Your task to perform on an android device: delete browsing data in the chrome app Image 0: 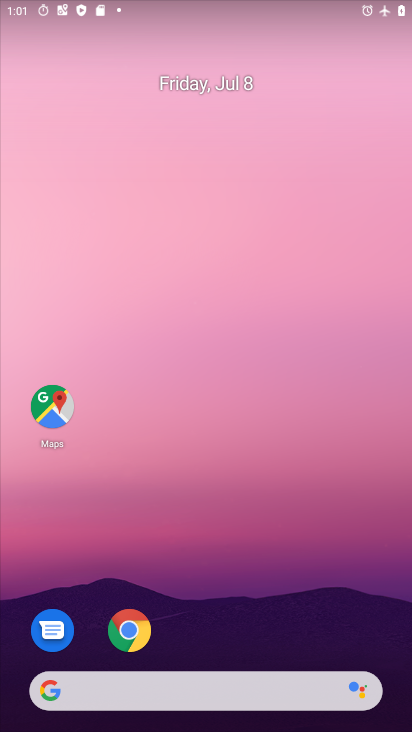
Step 0: click (119, 632)
Your task to perform on an android device: delete browsing data in the chrome app Image 1: 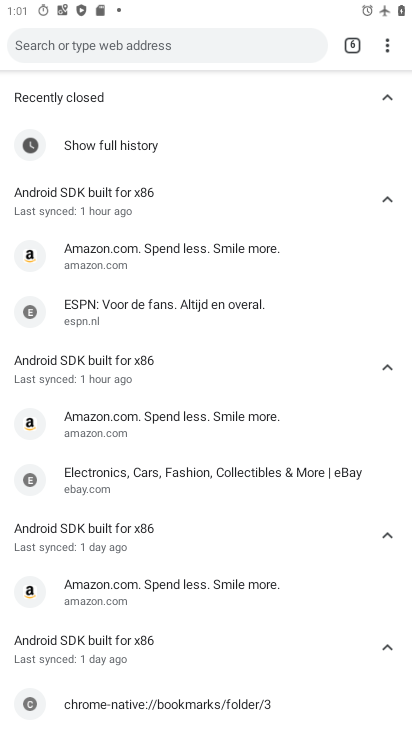
Step 1: click (386, 52)
Your task to perform on an android device: delete browsing data in the chrome app Image 2: 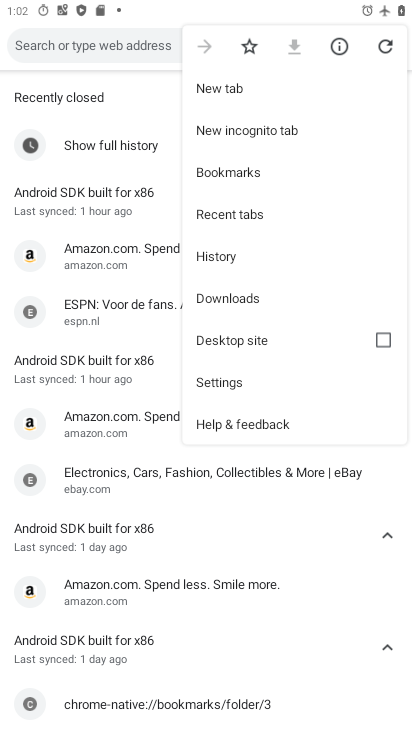
Step 2: click (231, 263)
Your task to perform on an android device: delete browsing data in the chrome app Image 3: 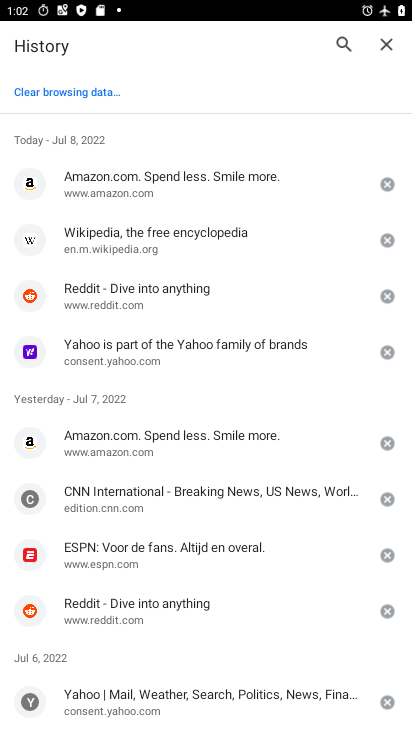
Step 3: click (53, 88)
Your task to perform on an android device: delete browsing data in the chrome app Image 4: 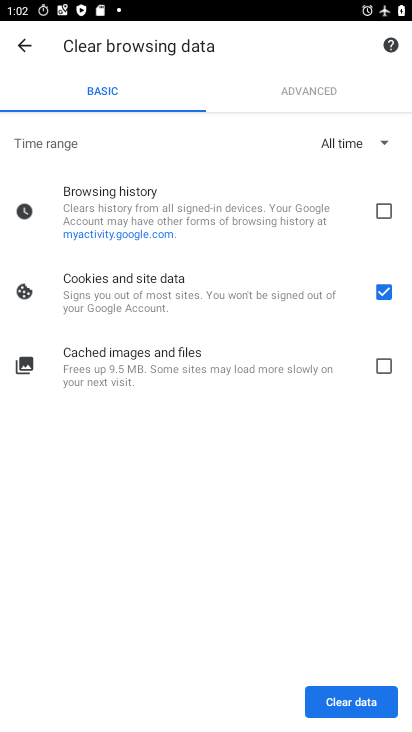
Step 4: click (380, 212)
Your task to perform on an android device: delete browsing data in the chrome app Image 5: 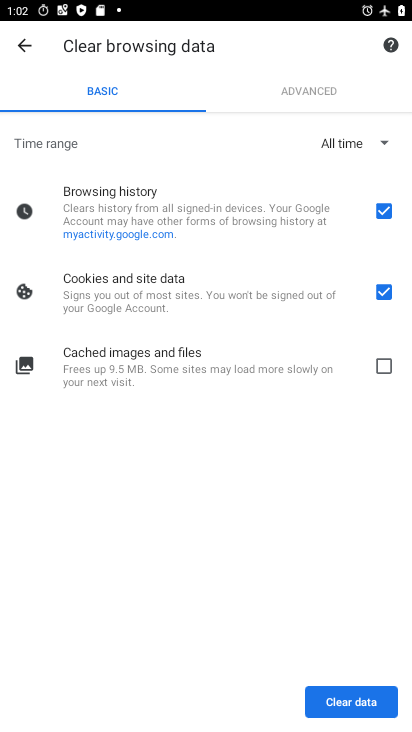
Step 5: click (362, 694)
Your task to perform on an android device: delete browsing data in the chrome app Image 6: 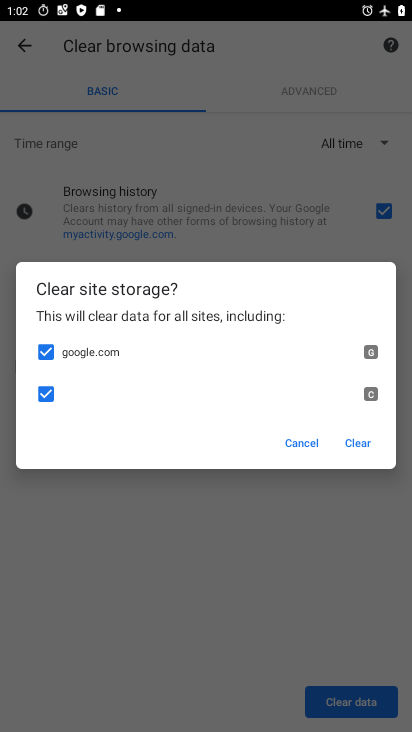
Step 6: click (350, 436)
Your task to perform on an android device: delete browsing data in the chrome app Image 7: 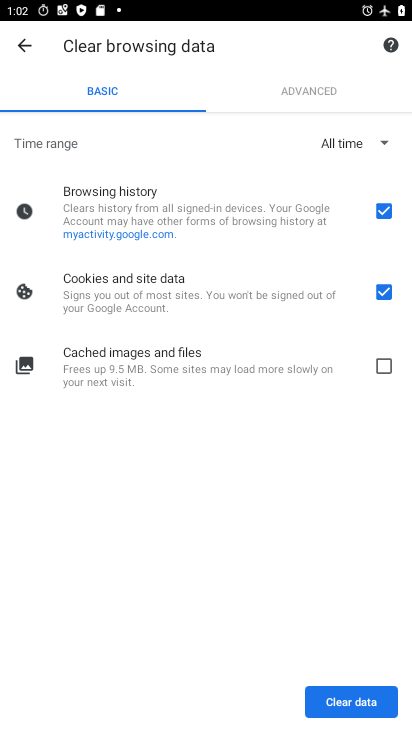
Step 7: task complete